Your task to perform on an android device: What's the weather going to be tomorrow? Image 0: 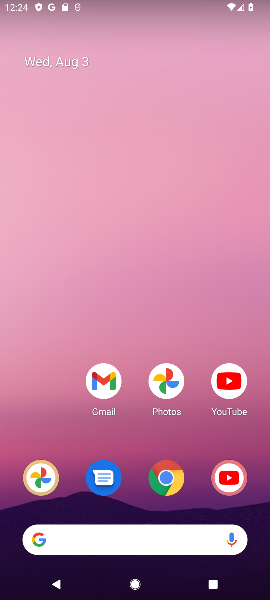
Step 0: click (103, 537)
Your task to perform on an android device: What's the weather going to be tomorrow? Image 1: 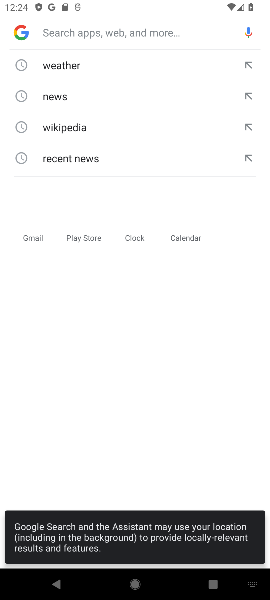
Step 1: click (69, 67)
Your task to perform on an android device: What's the weather going to be tomorrow? Image 2: 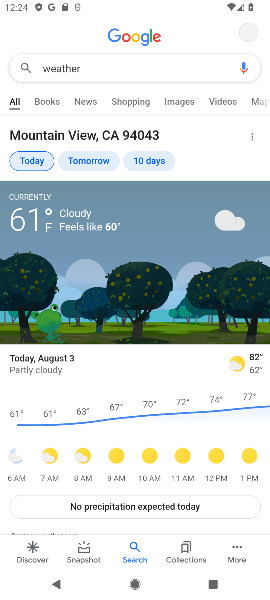
Step 2: click (104, 157)
Your task to perform on an android device: What's the weather going to be tomorrow? Image 3: 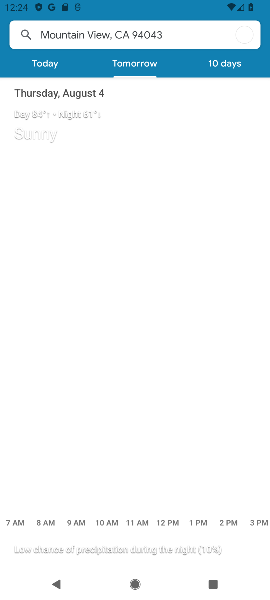
Step 3: task complete